Your task to perform on an android device: empty trash in the gmail app Image 0: 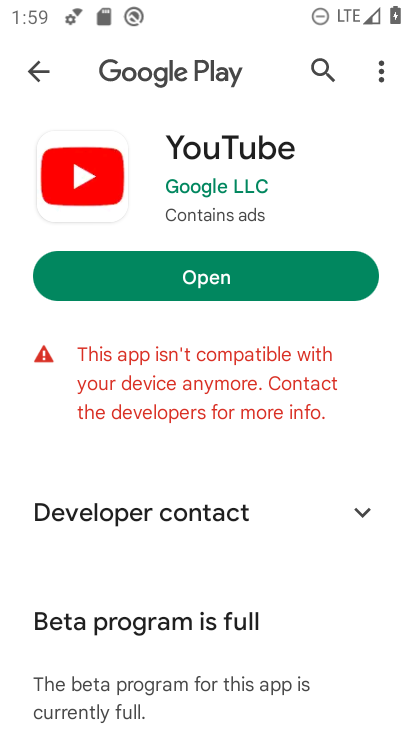
Step 0: press home button
Your task to perform on an android device: empty trash in the gmail app Image 1: 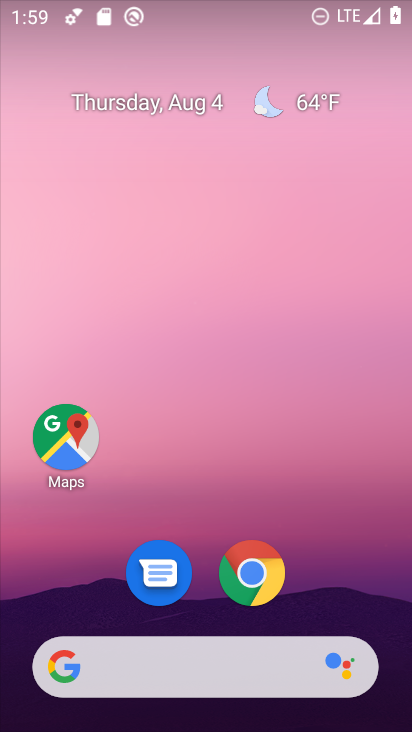
Step 1: drag from (330, 561) to (279, 154)
Your task to perform on an android device: empty trash in the gmail app Image 2: 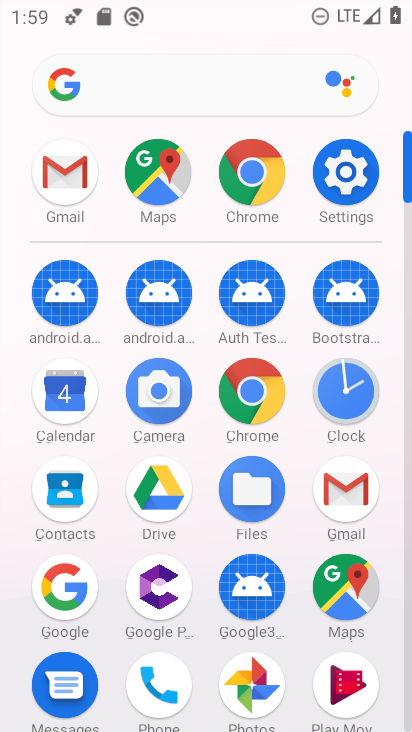
Step 2: click (339, 496)
Your task to perform on an android device: empty trash in the gmail app Image 3: 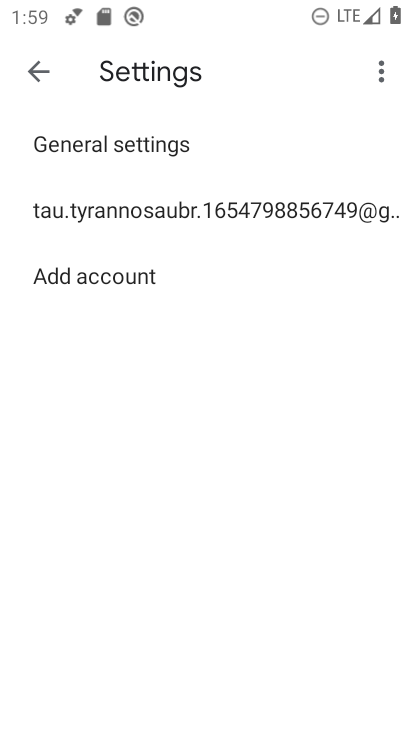
Step 3: click (37, 75)
Your task to perform on an android device: empty trash in the gmail app Image 4: 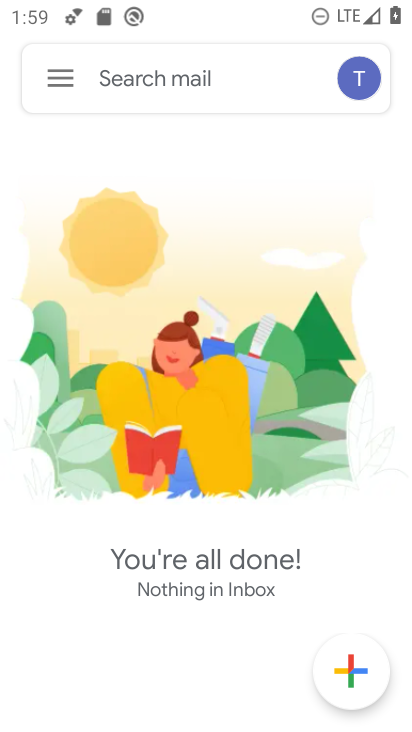
Step 4: click (37, 75)
Your task to perform on an android device: empty trash in the gmail app Image 5: 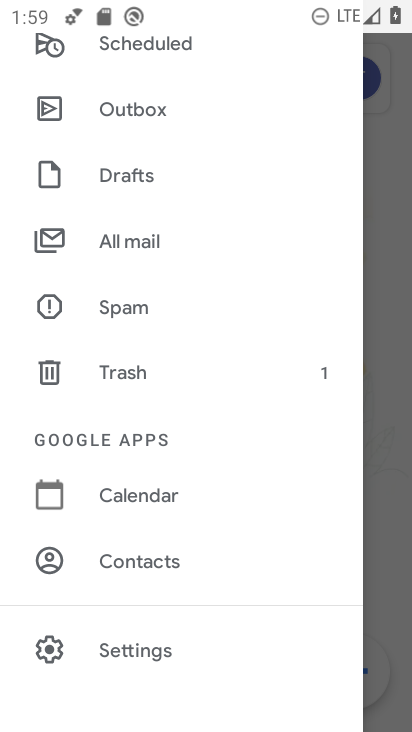
Step 5: click (129, 378)
Your task to perform on an android device: empty trash in the gmail app Image 6: 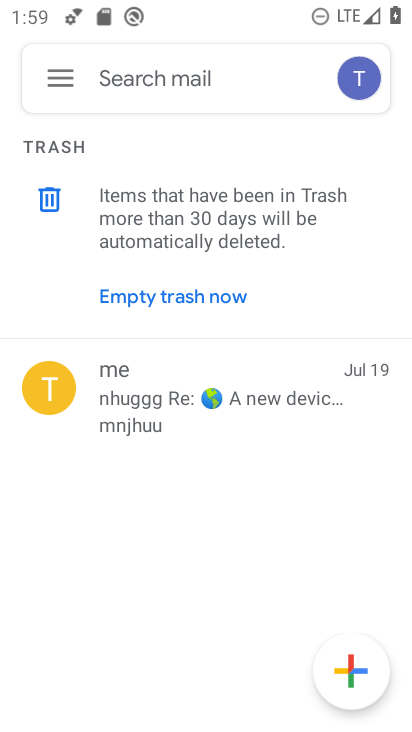
Step 6: click (202, 292)
Your task to perform on an android device: empty trash in the gmail app Image 7: 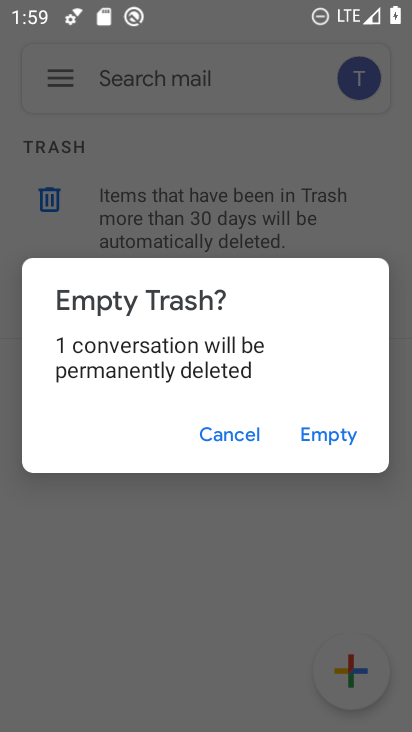
Step 7: click (327, 428)
Your task to perform on an android device: empty trash in the gmail app Image 8: 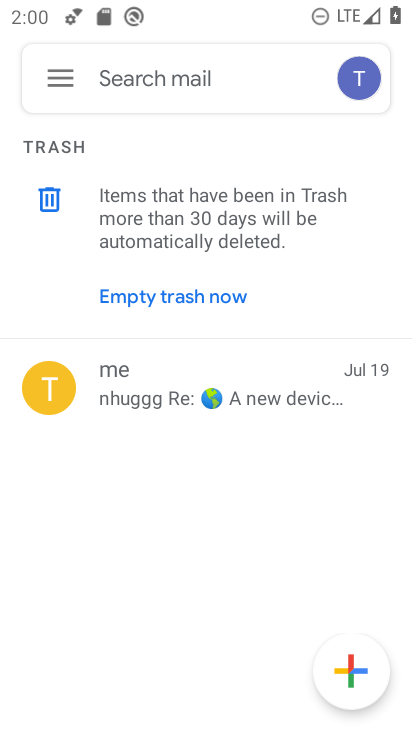
Step 8: click (209, 304)
Your task to perform on an android device: empty trash in the gmail app Image 9: 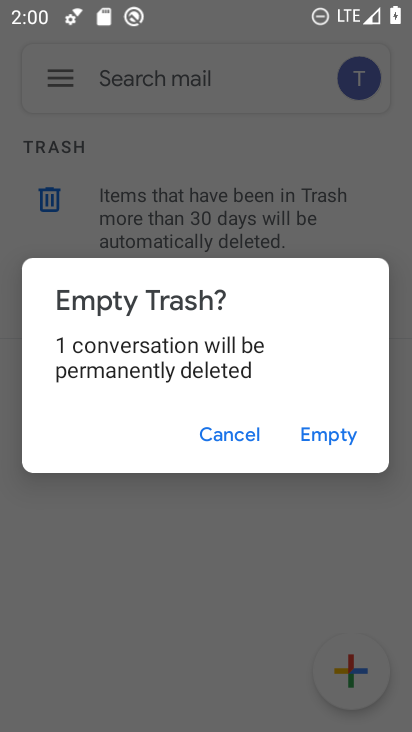
Step 9: click (321, 430)
Your task to perform on an android device: empty trash in the gmail app Image 10: 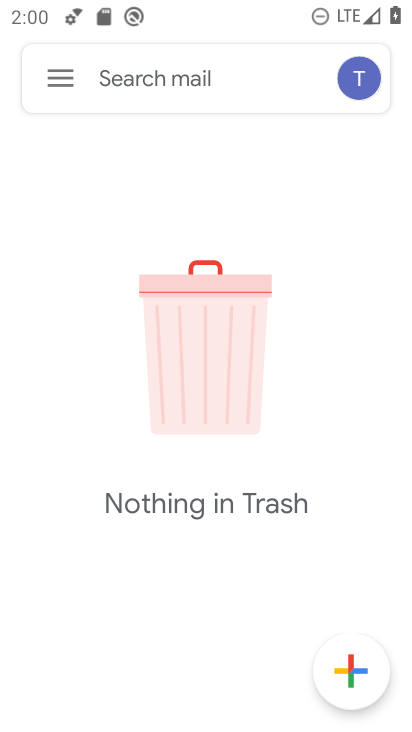
Step 10: task complete